Your task to perform on an android device: What's on my calendar today? Image 0: 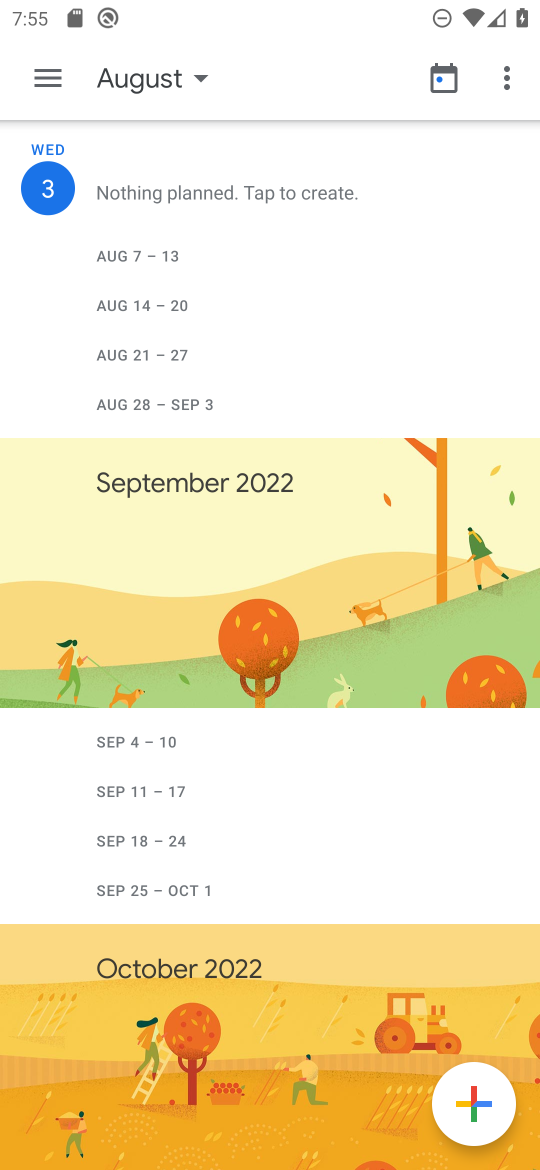
Step 0: click (57, 182)
Your task to perform on an android device: What's on my calendar today? Image 1: 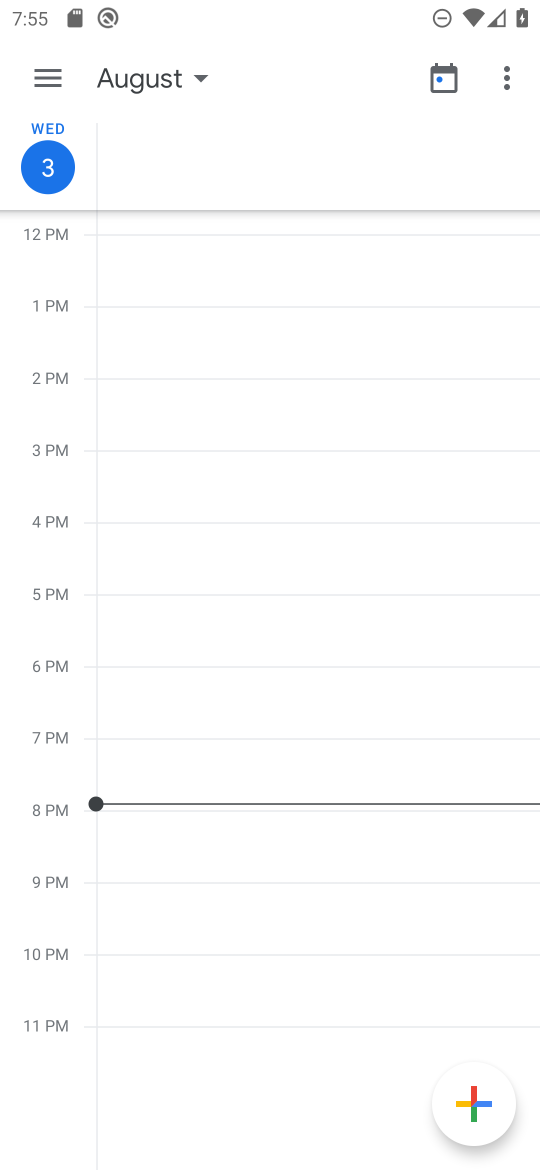
Step 1: task complete